Your task to perform on an android device: toggle wifi Image 0: 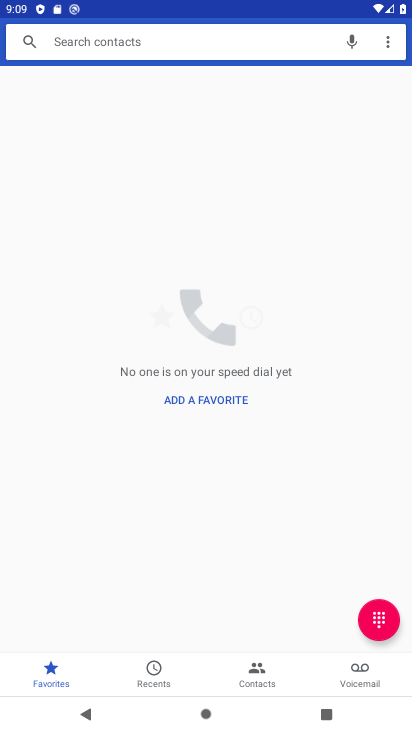
Step 0: press home button
Your task to perform on an android device: toggle wifi Image 1: 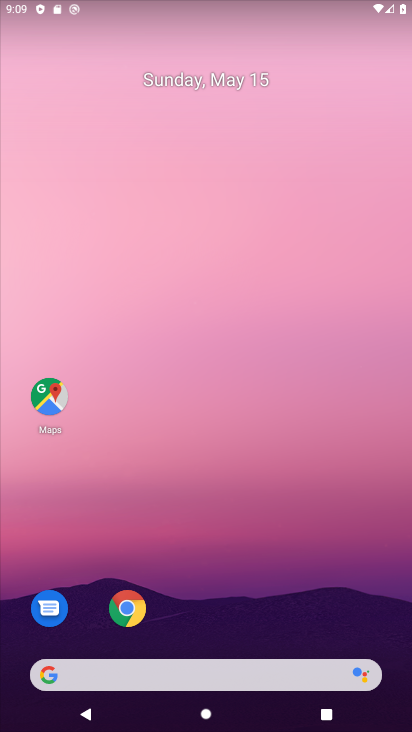
Step 1: drag from (254, 606) to (260, 83)
Your task to perform on an android device: toggle wifi Image 2: 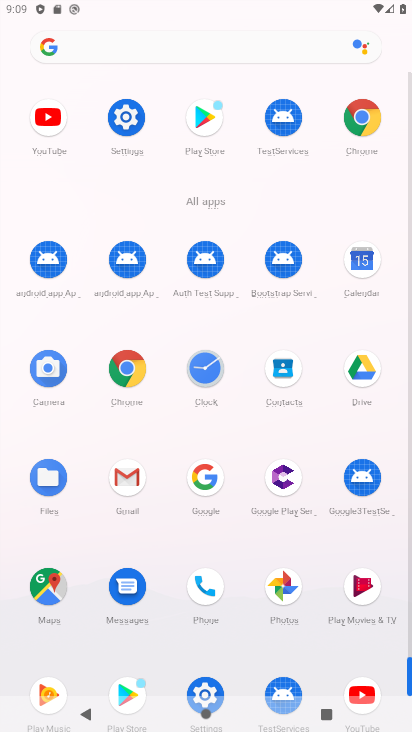
Step 2: click (123, 120)
Your task to perform on an android device: toggle wifi Image 3: 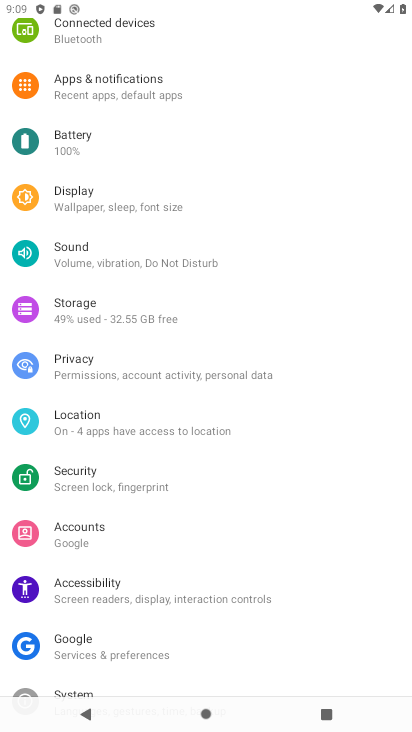
Step 3: drag from (119, 77) to (106, 564)
Your task to perform on an android device: toggle wifi Image 4: 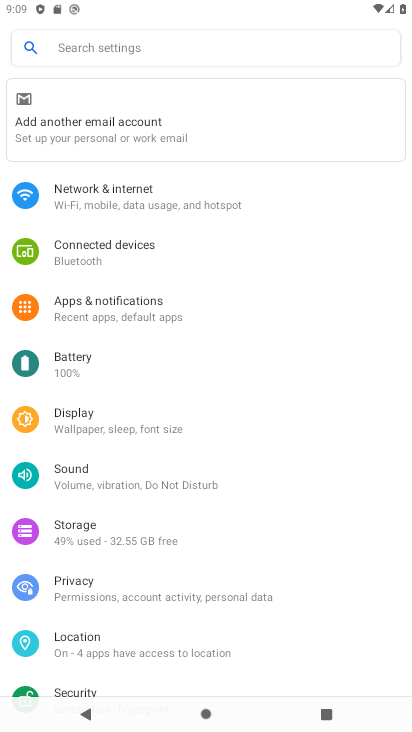
Step 4: click (112, 190)
Your task to perform on an android device: toggle wifi Image 5: 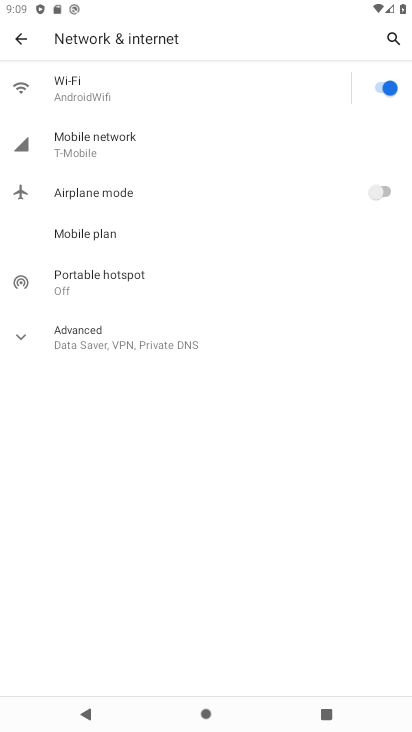
Step 5: click (384, 93)
Your task to perform on an android device: toggle wifi Image 6: 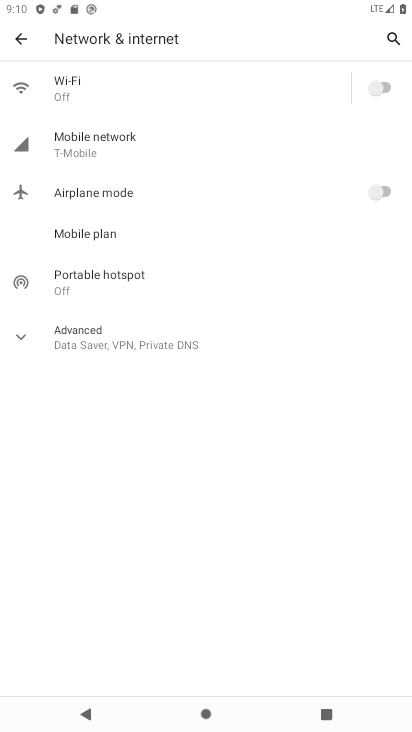
Step 6: task complete